Your task to perform on an android device: add a contact Image 0: 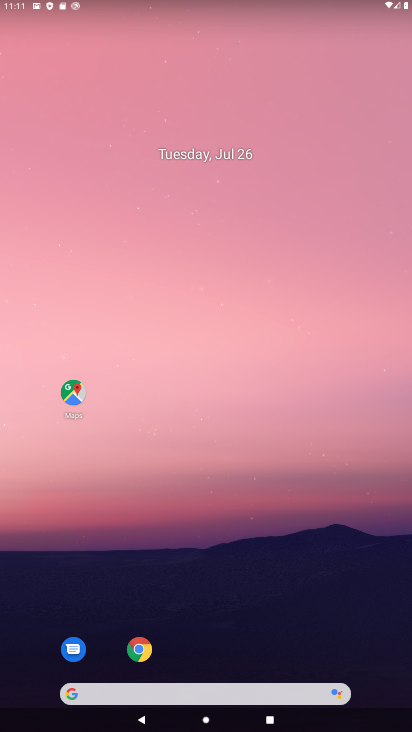
Step 0: drag from (264, 589) to (229, 234)
Your task to perform on an android device: add a contact Image 1: 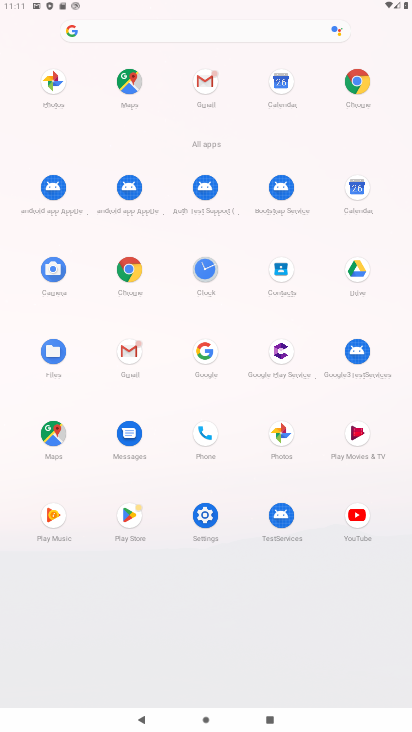
Step 1: drag from (223, 591) to (210, 188)
Your task to perform on an android device: add a contact Image 2: 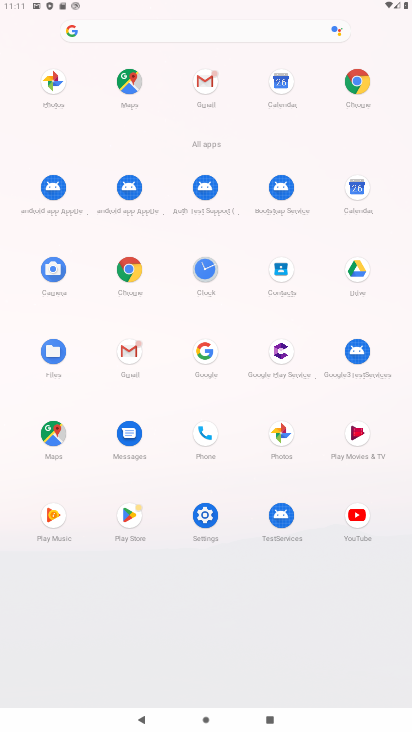
Step 2: click (280, 272)
Your task to perform on an android device: add a contact Image 3: 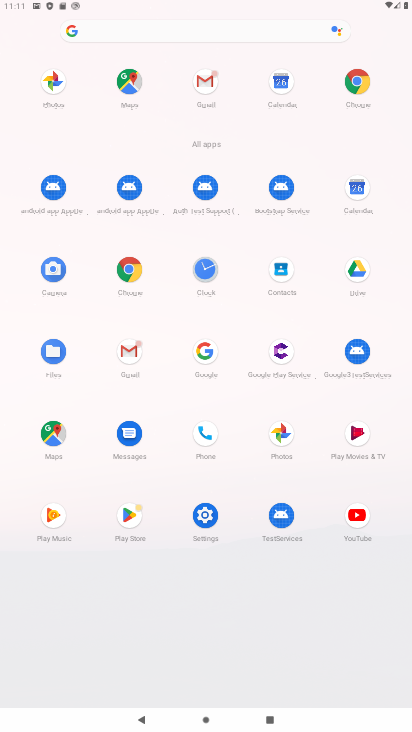
Step 3: click (280, 272)
Your task to perform on an android device: add a contact Image 4: 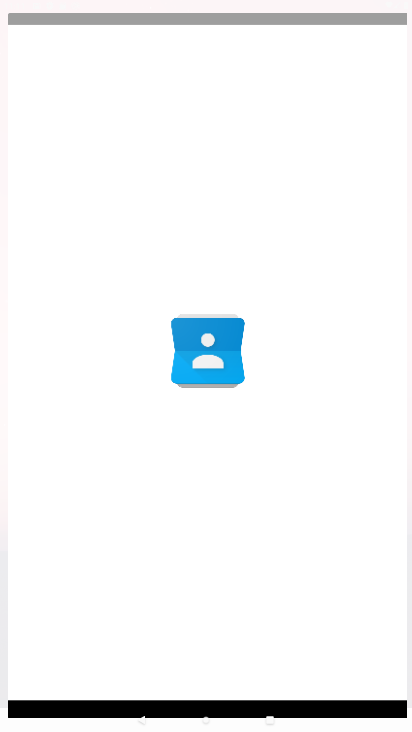
Step 4: click (285, 268)
Your task to perform on an android device: add a contact Image 5: 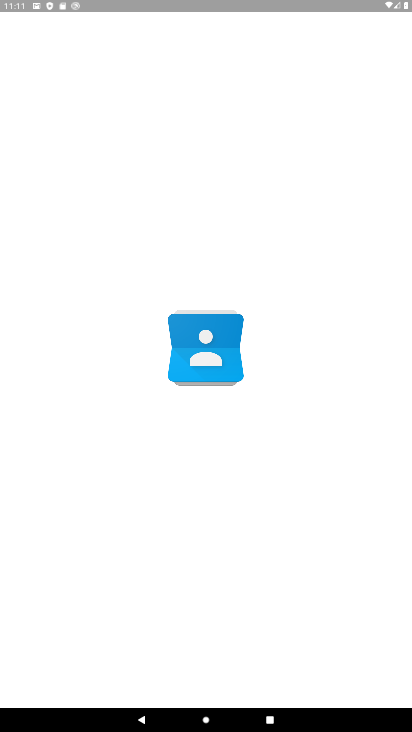
Step 5: click (287, 271)
Your task to perform on an android device: add a contact Image 6: 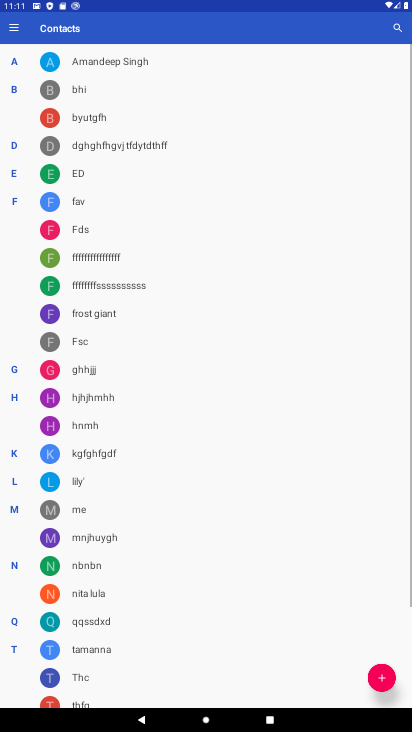
Step 6: click (380, 677)
Your task to perform on an android device: add a contact Image 7: 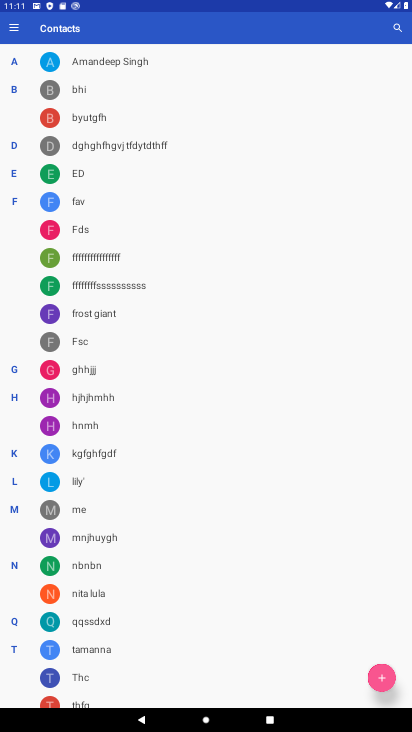
Step 7: click (380, 678)
Your task to perform on an android device: add a contact Image 8: 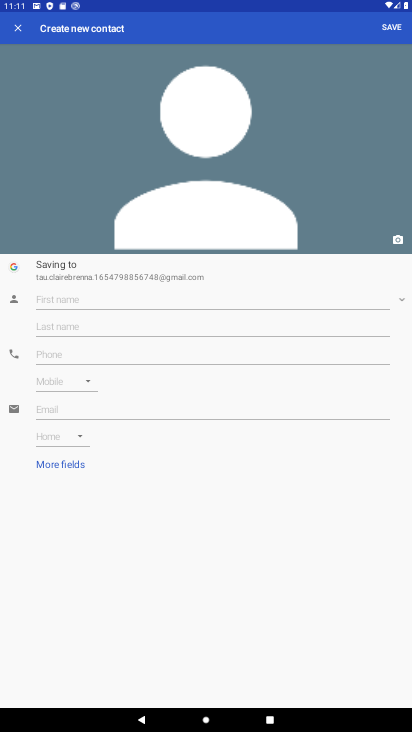
Step 8: click (48, 301)
Your task to perform on an android device: add a contact Image 9: 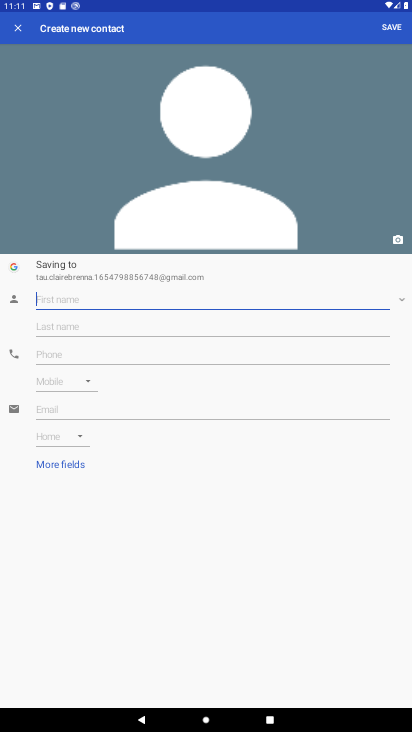
Step 9: click (48, 301)
Your task to perform on an android device: add a contact Image 10: 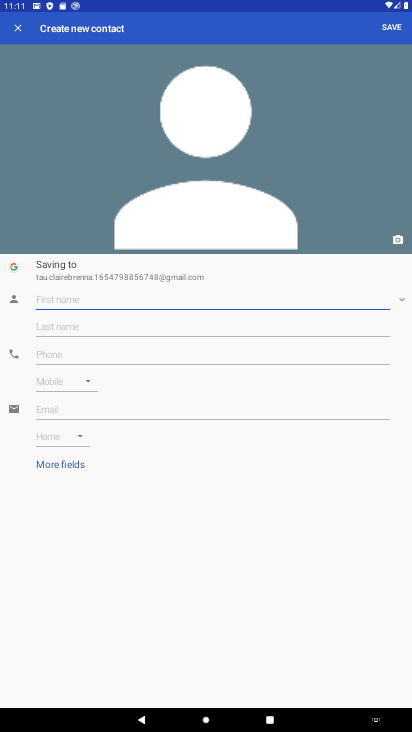
Step 10: click (48, 301)
Your task to perform on an android device: add a contact Image 11: 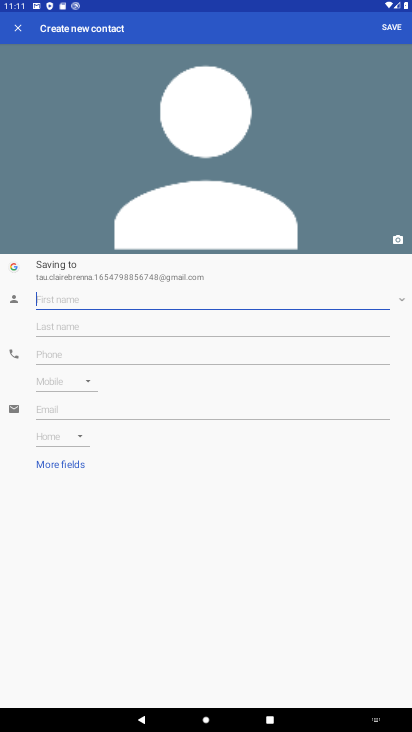
Step 11: type "jj n n kcx k.c"
Your task to perform on an android device: add a contact Image 12: 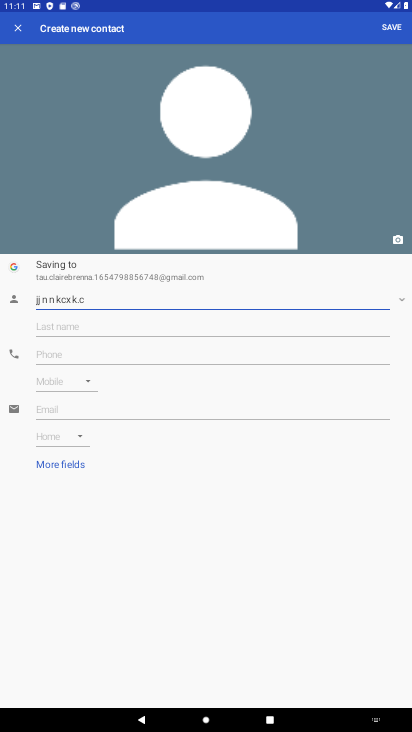
Step 12: click (54, 357)
Your task to perform on an android device: add a contact Image 13: 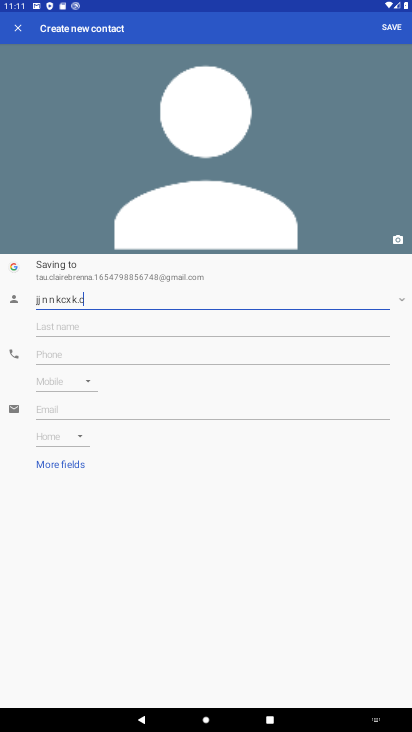
Step 13: click (54, 357)
Your task to perform on an android device: add a contact Image 14: 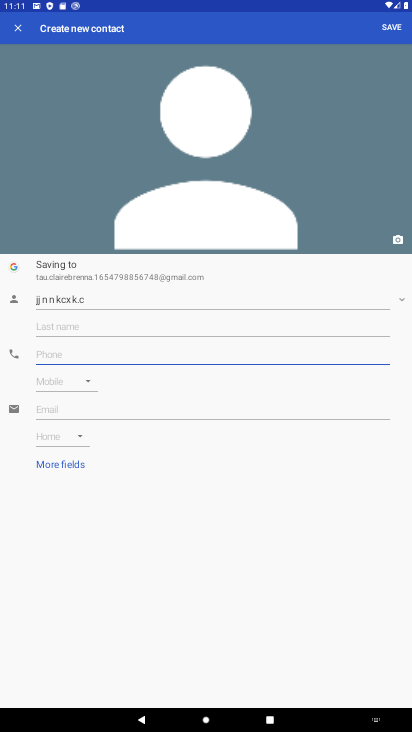
Step 14: click (54, 357)
Your task to perform on an android device: add a contact Image 15: 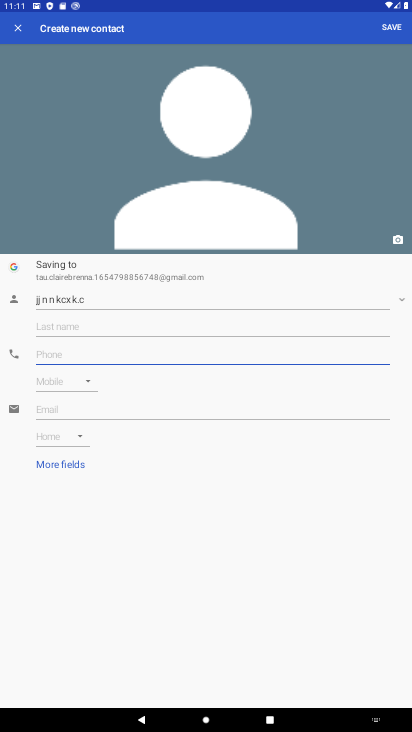
Step 15: click (54, 357)
Your task to perform on an android device: add a contact Image 16: 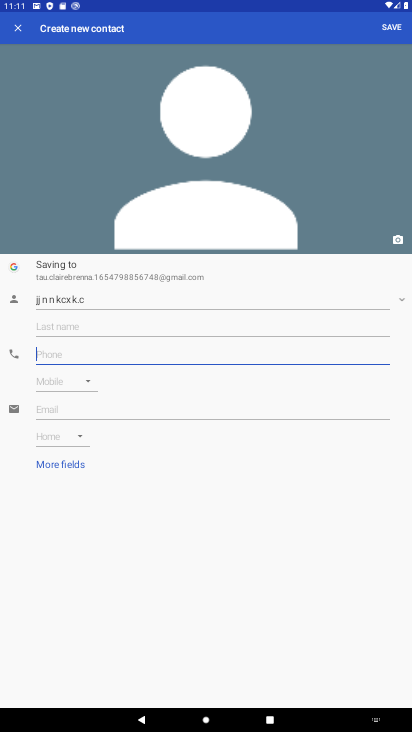
Step 16: type "89t894389894"
Your task to perform on an android device: add a contact Image 17: 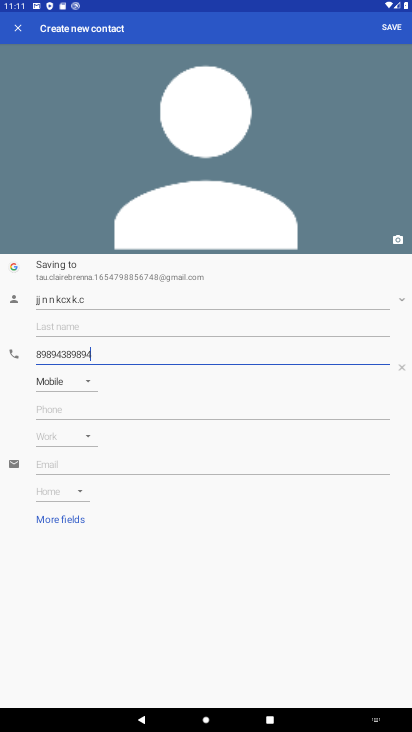
Step 17: click (386, 32)
Your task to perform on an android device: add a contact Image 18: 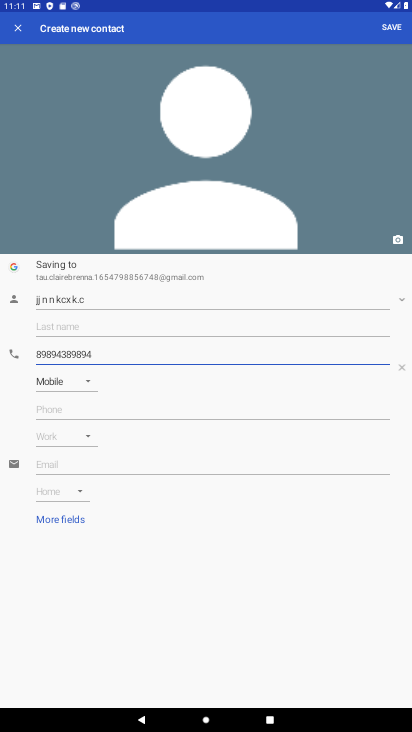
Step 18: click (387, 32)
Your task to perform on an android device: add a contact Image 19: 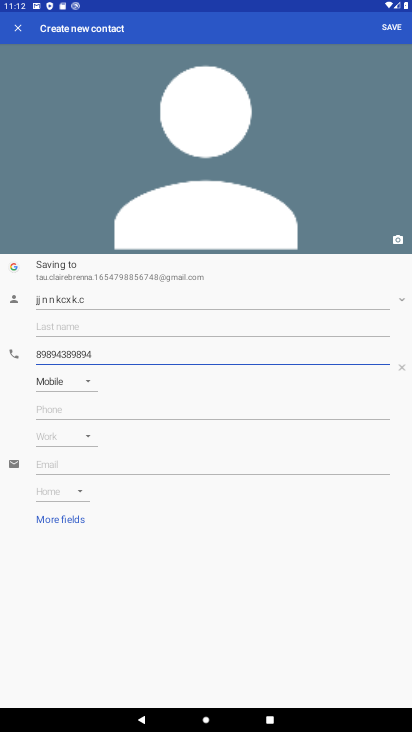
Step 19: click (389, 33)
Your task to perform on an android device: add a contact Image 20: 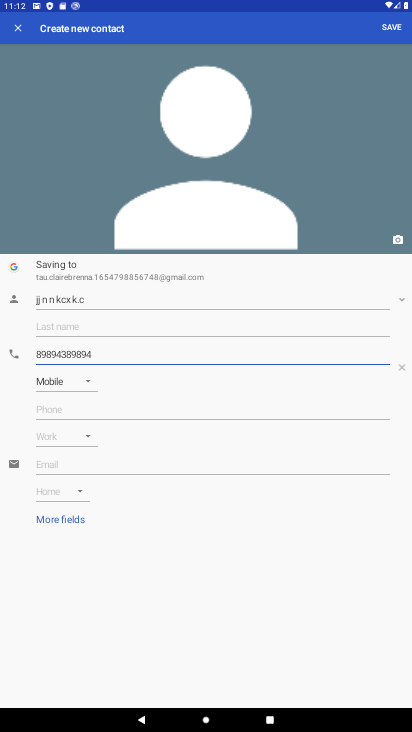
Step 20: click (389, 33)
Your task to perform on an android device: add a contact Image 21: 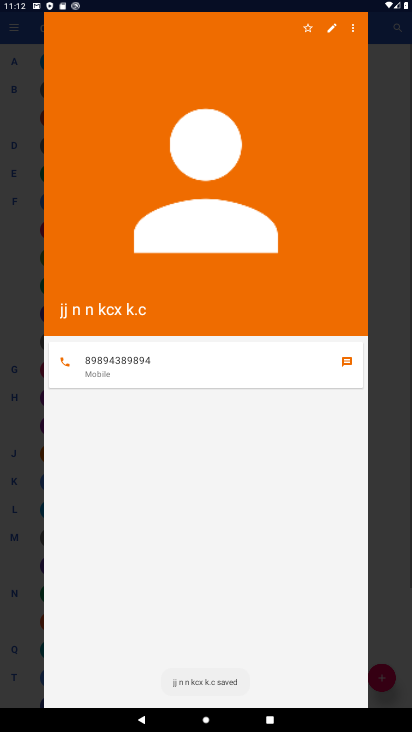
Step 21: click (393, 25)
Your task to perform on an android device: add a contact Image 22: 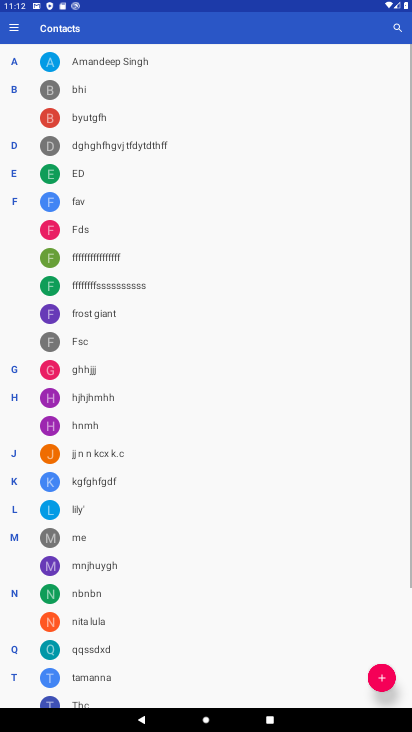
Step 22: task complete